Your task to perform on an android device: turn on bluetooth scan Image 0: 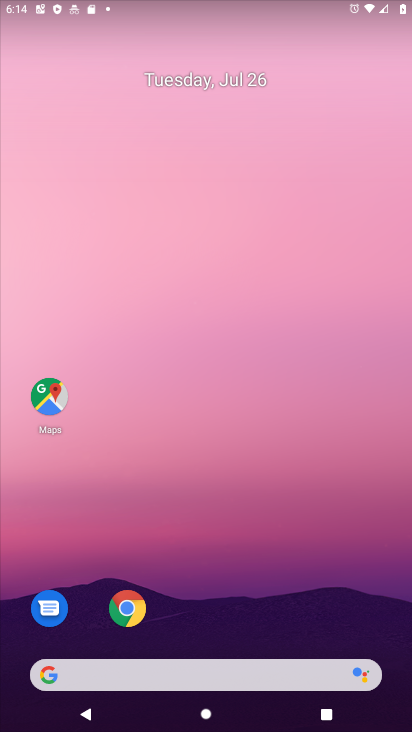
Step 0: press home button
Your task to perform on an android device: turn on bluetooth scan Image 1: 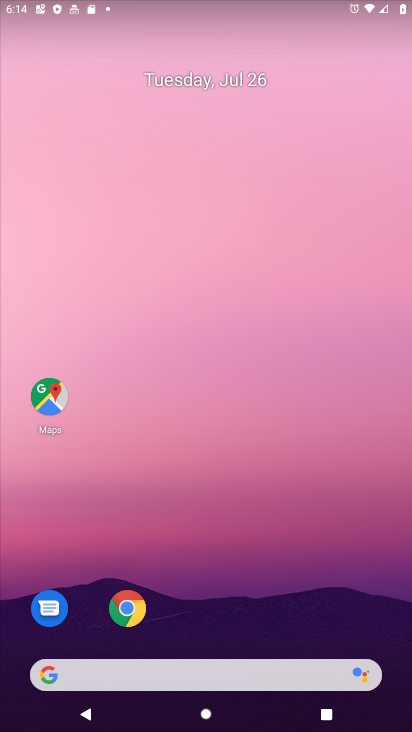
Step 1: drag from (246, 644) to (197, 272)
Your task to perform on an android device: turn on bluetooth scan Image 2: 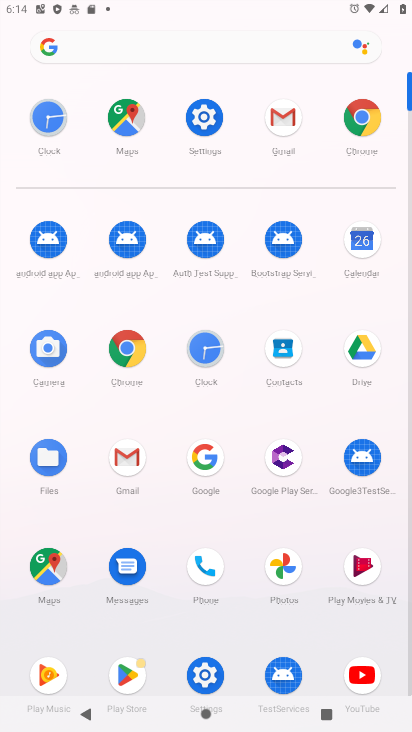
Step 2: click (202, 127)
Your task to perform on an android device: turn on bluetooth scan Image 3: 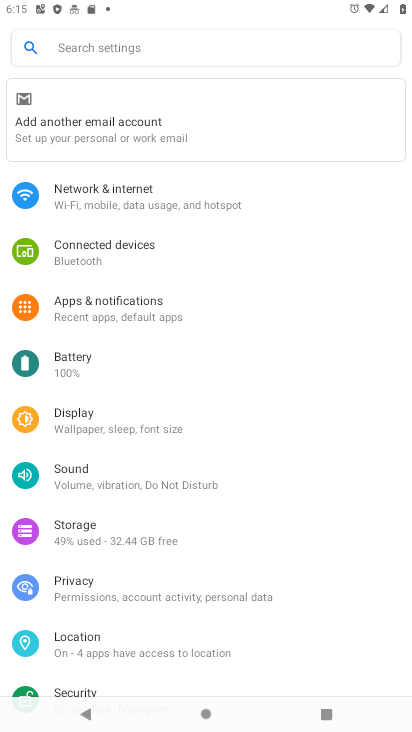
Step 3: click (84, 647)
Your task to perform on an android device: turn on bluetooth scan Image 4: 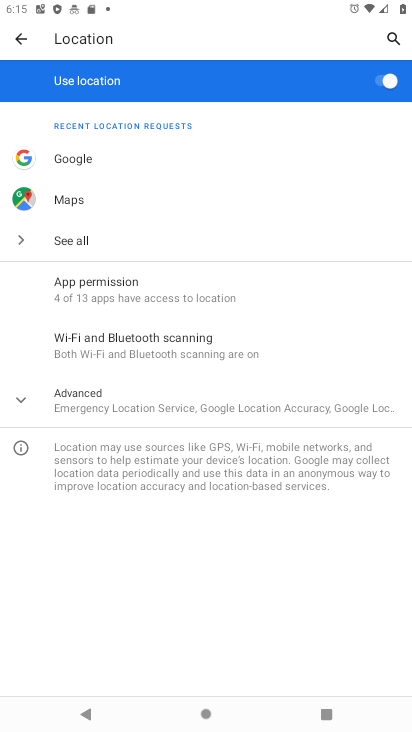
Step 4: click (101, 350)
Your task to perform on an android device: turn on bluetooth scan Image 5: 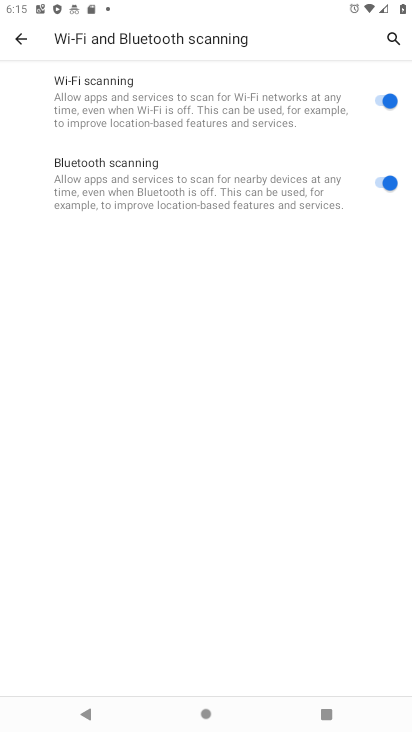
Step 5: task complete